Your task to perform on an android device: When is my next appointment? Image 0: 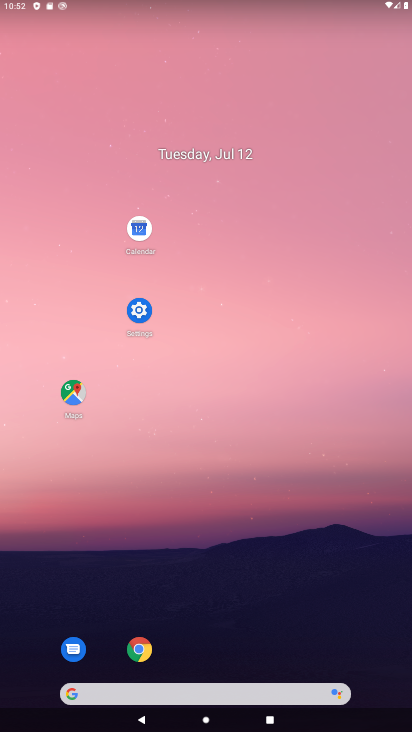
Step 0: click (133, 223)
Your task to perform on an android device: When is my next appointment? Image 1: 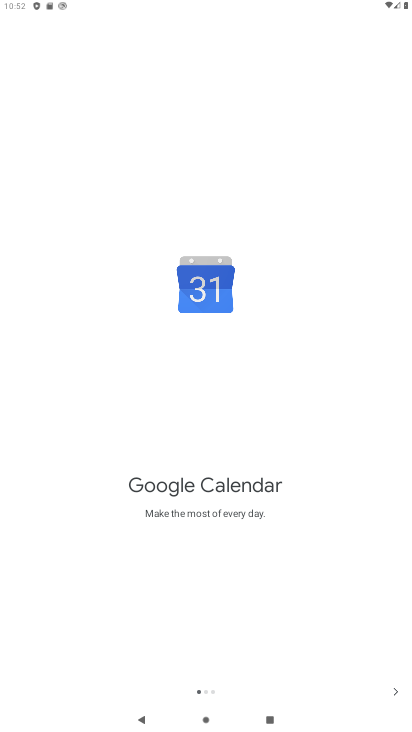
Step 1: click (393, 693)
Your task to perform on an android device: When is my next appointment? Image 2: 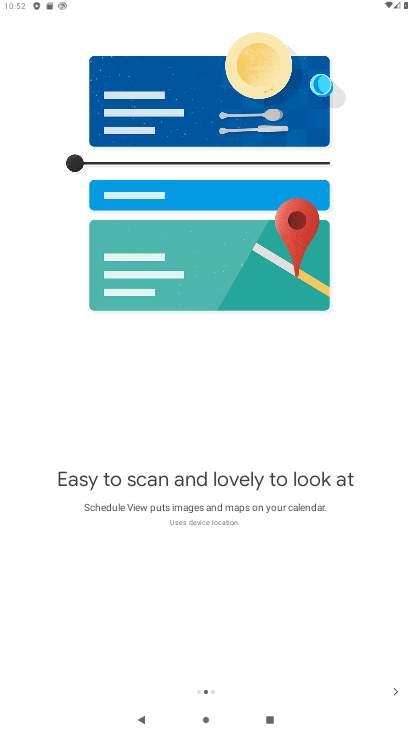
Step 2: click (393, 693)
Your task to perform on an android device: When is my next appointment? Image 3: 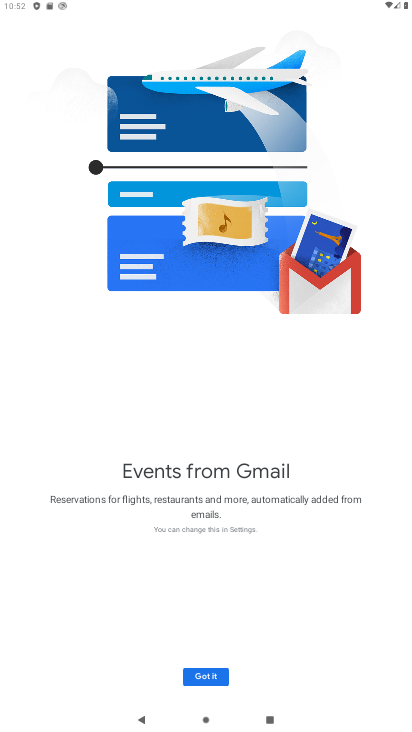
Step 3: click (393, 693)
Your task to perform on an android device: When is my next appointment? Image 4: 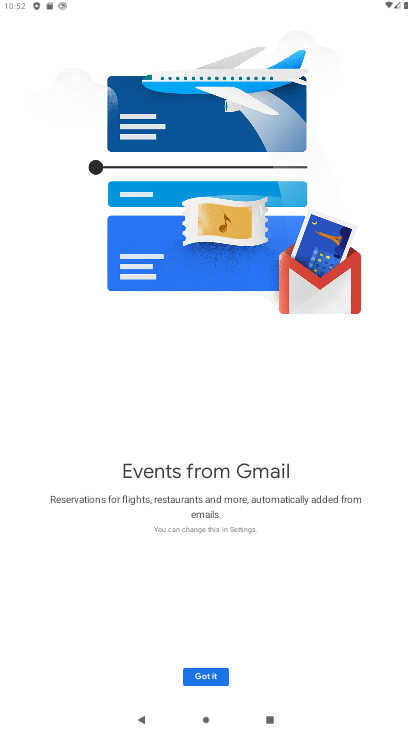
Step 4: click (193, 673)
Your task to perform on an android device: When is my next appointment? Image 5: 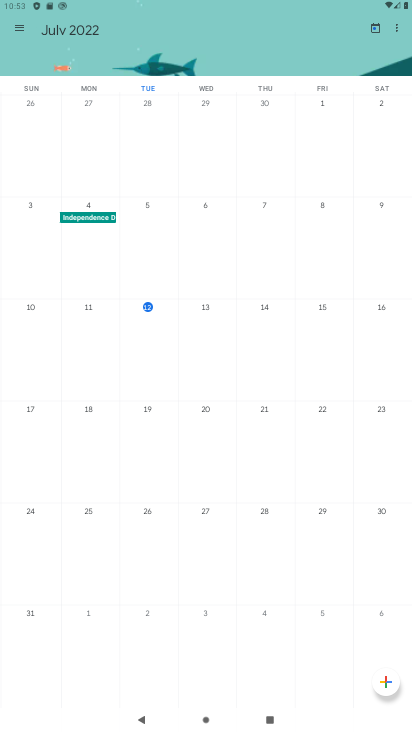
Step 5: click (193, 309)
Your task to perform on an android device: When is my next appointment? Image 6: 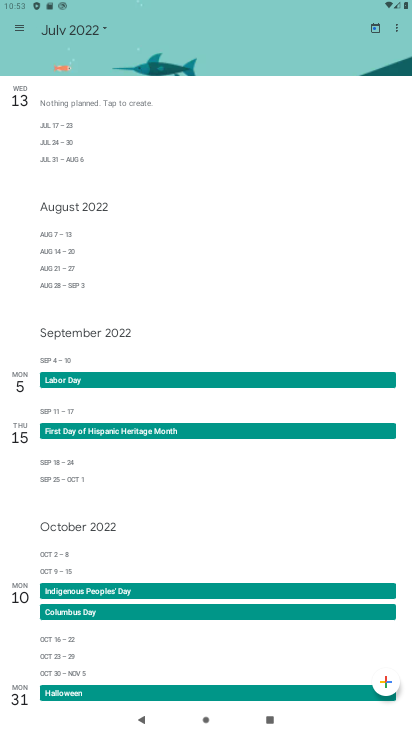
Step 6: task complete